Your task to perform on an android device: change the clock style Image 0: 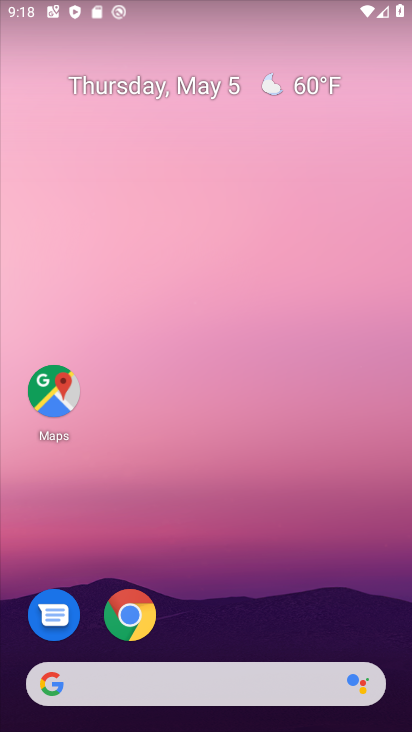
Step 0: drag from (229, 621) to (255, 121)
Your task to perform on an android device: change the clock style Image 1: 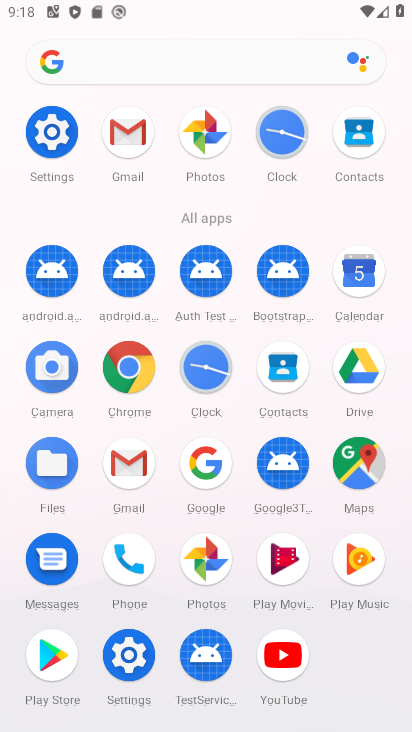
Step 1: click (206, 367)
Your task to perform on an android device: change the clock style Image 2: 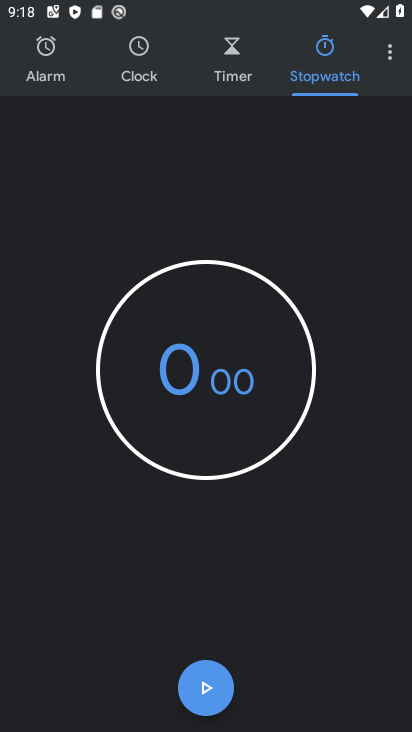
Step 2: click (382, 49)
Your task to perform on an android device: change the clock style Image 3: 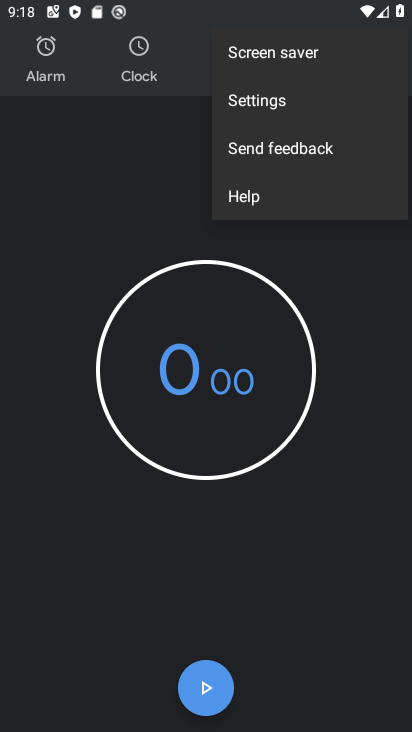
Step 3: click (272, 113)
Your task to perform on an android device: change the clock style Image 4: 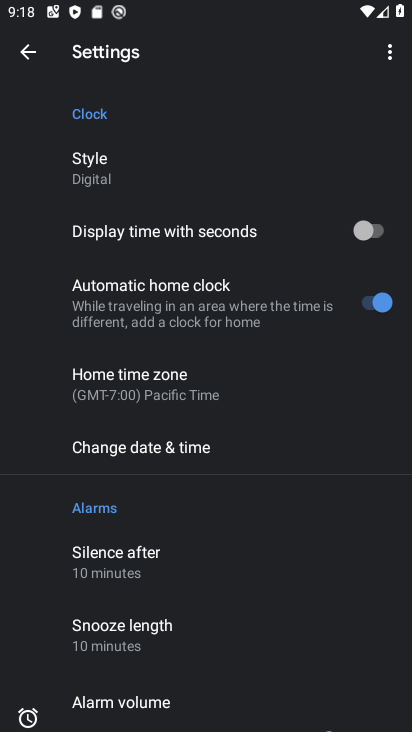
Step 4: click (136, 177)
Your task to perform on an android device: change the clock style Image 5: 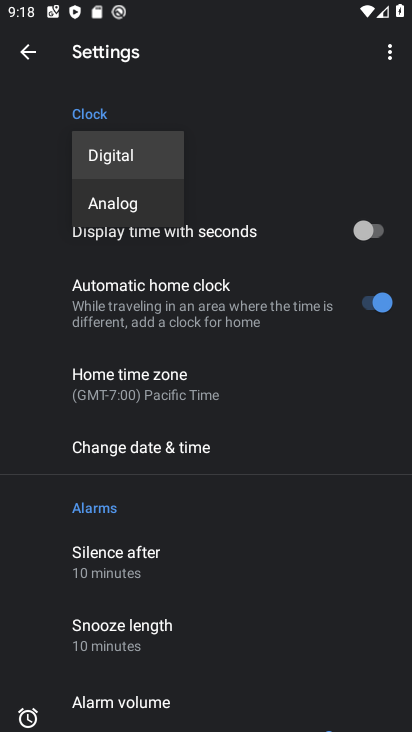
Step 5: click (128, 200)
Your task to perform on an android device: change the clock style Image 6: 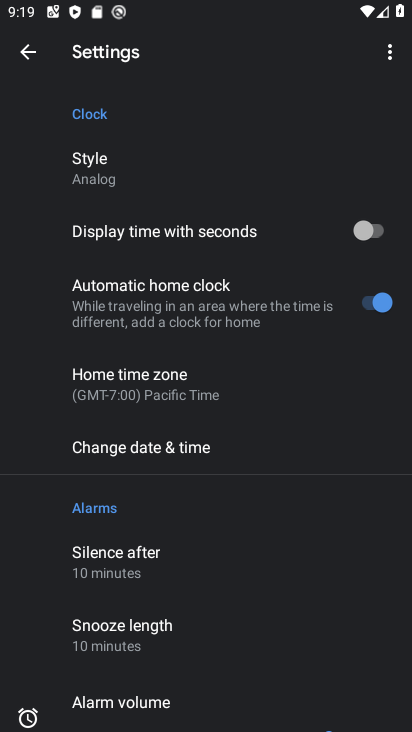
Step 6: task complete